Your task to perform on an android device: toggle notifications settings in the gmail app Image 0: 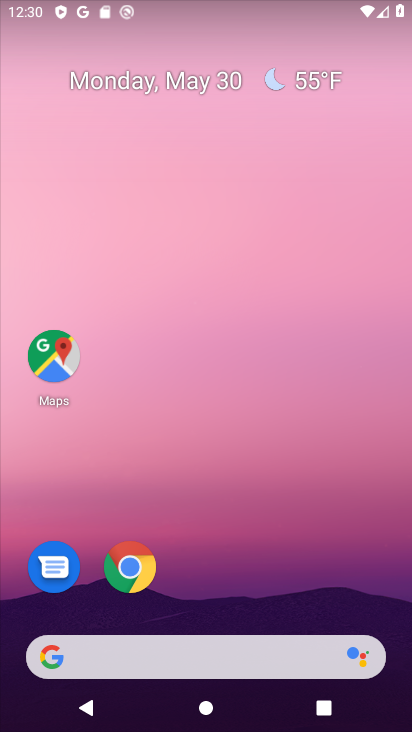
Step 0: press home button
Your task to perform on an android device: toggle notifications settings in the gmail app Image 1: 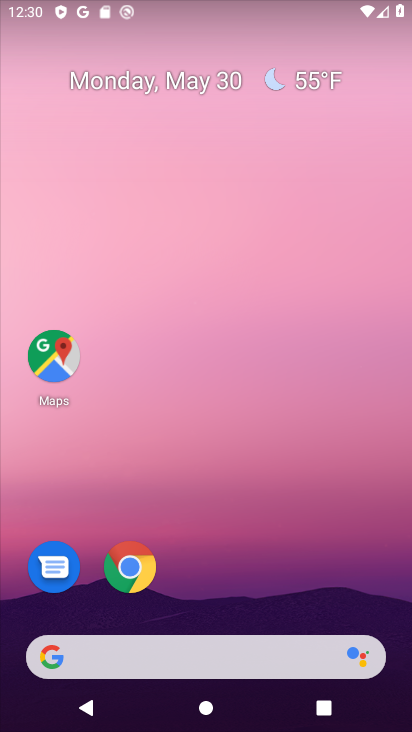
Step 1: drag from (238, 589) to (286, 194)
Your task to perform on an android device: toggle notifications settings in the gmail app Image 2: 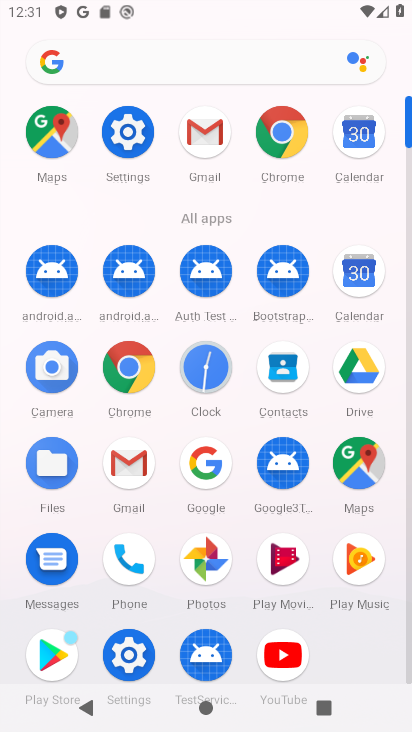
Step 2: click (124, 465)
Your task to perform on an android device: toggle notifications settings in the gmail app Image 3: 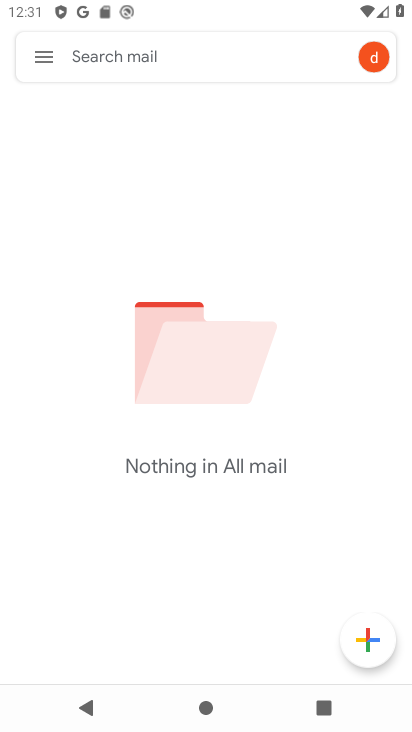
Step 3: click (45, 60)
Your task to perform on an android device: toggle notifications settings in the gmail app Image 4: 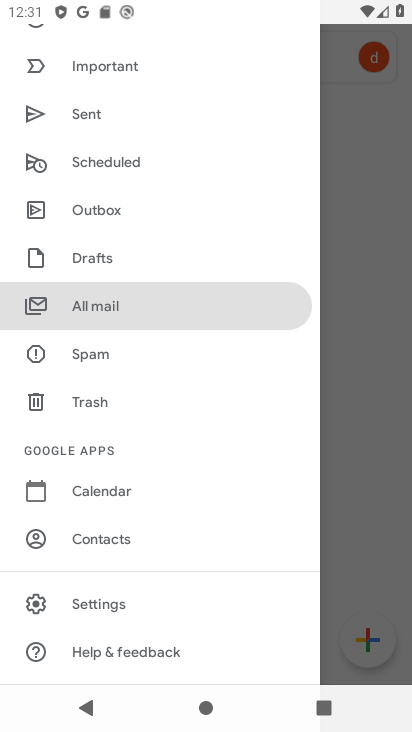
Step 4: click (83, 590)
Your task to perform on an android device: toggle notifications settings in the gmail app Image 5: 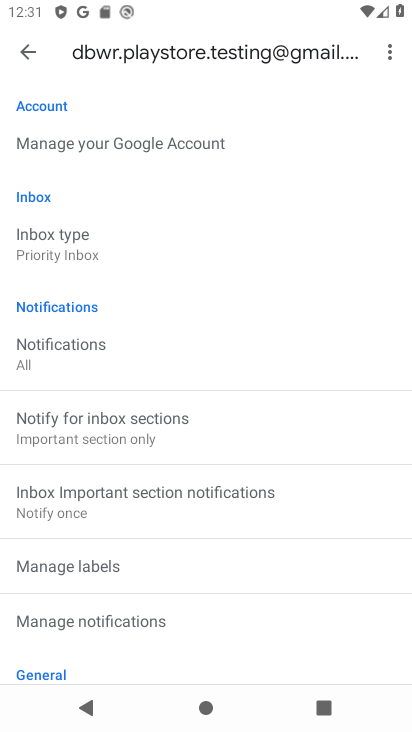
Step 5: click (28, 55)
Your task to perform on an android device: toggle notifications settings in the gmail app Image 6: 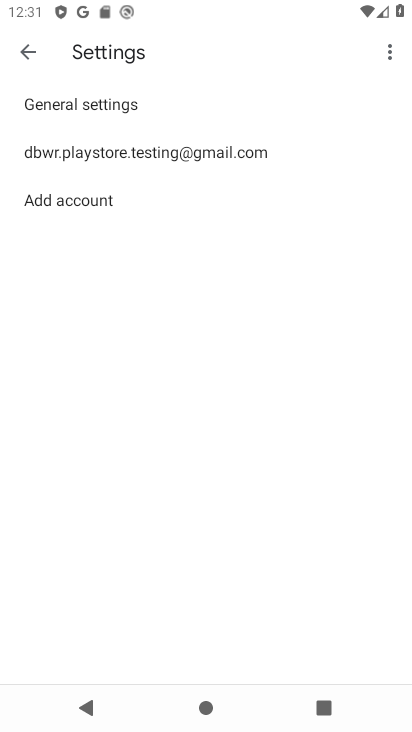
Step 6: click (129, 100)
Your task to perform on an android device: toggle notifications settings in the gmail app Image 7: 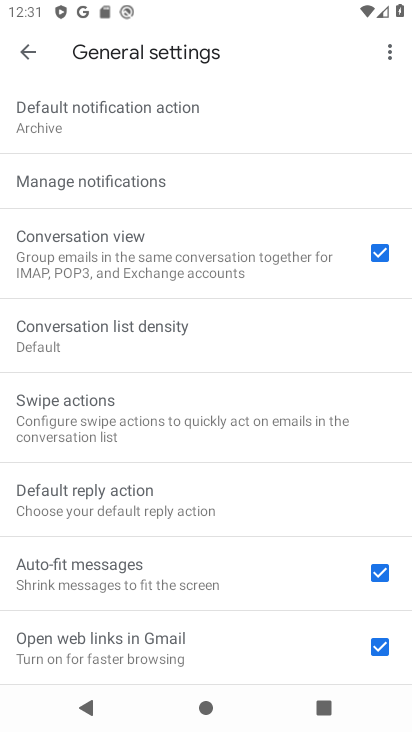
Step 7: click (156, 171)
Your task to perform on an android device: toggle notifications settings in the gmail app Image 8: 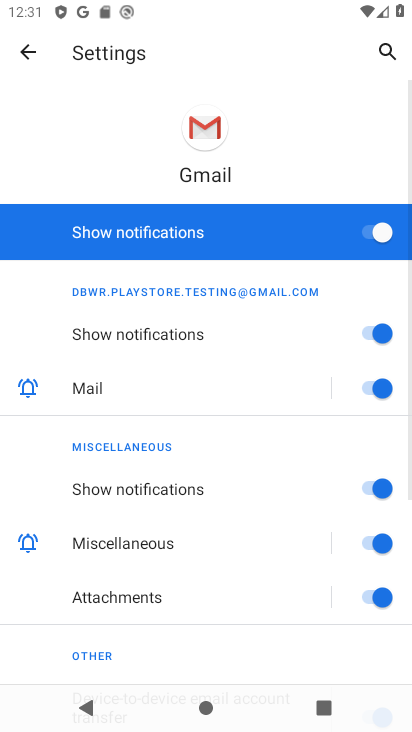
Step 8: click (375, 228)
Your task to perform on an android device: toggle notifications settings in the gmail app Image 9: 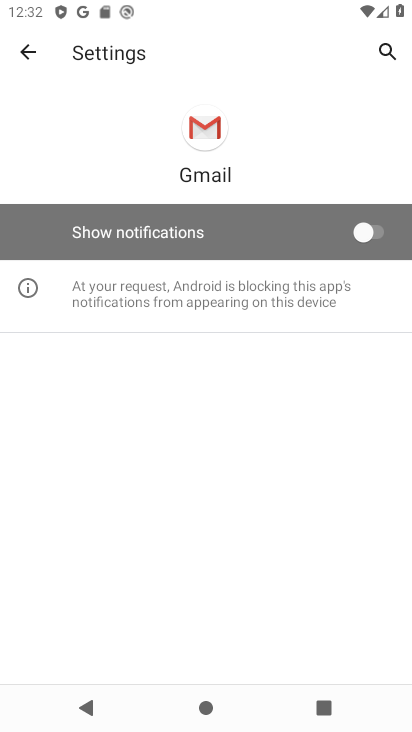
Step 9: task complete